Your task to perform on an android device: Open Reddit.com Image 0: 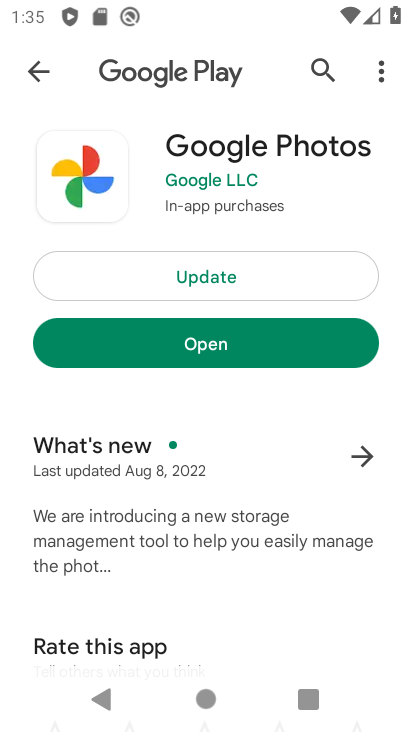
Step 0: press back button
Your task to perform on an android device: Open Reddit.com Image 1: 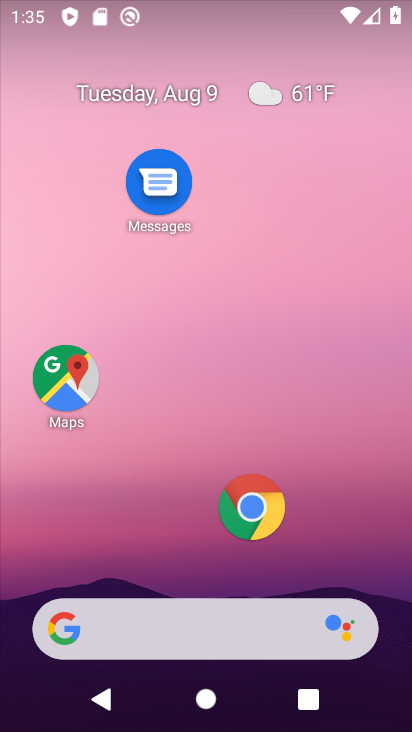
Step 1: drag from (134, 568) to (243, 120)
Your task to perform on an android device: Open Reddit.com Image 2: 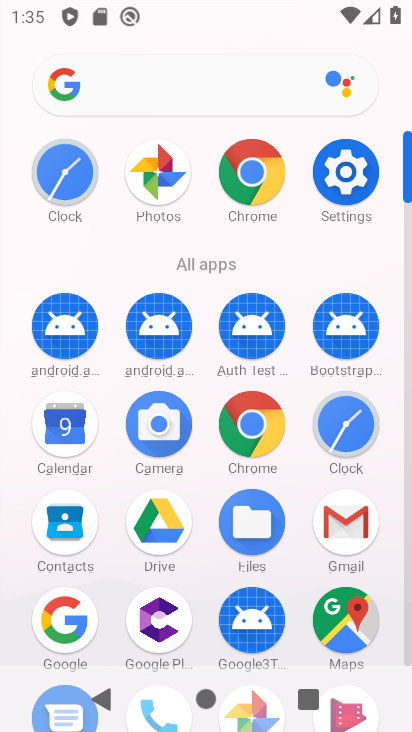
Step 2: click (255, 165)
Your task to perform on an android device: Open Reddit.com Image 3: 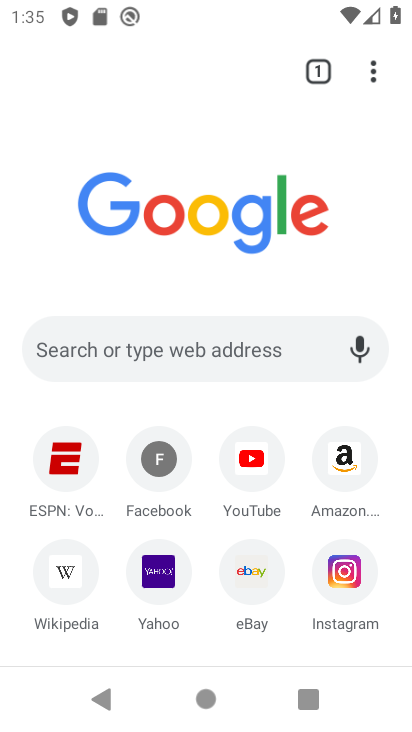
Step 3: click (176, 348)
Your task to perform on an android device: Open Reddit.com Image 4: 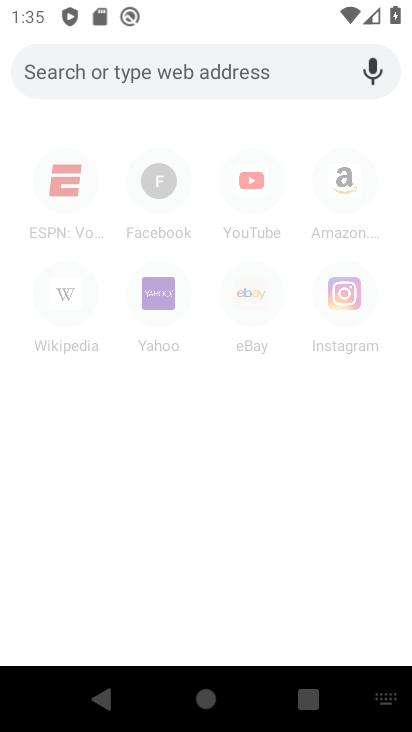
Step 4: click (180, 85)
Your task to perform on an android device: Open Reddit.com Image 5: 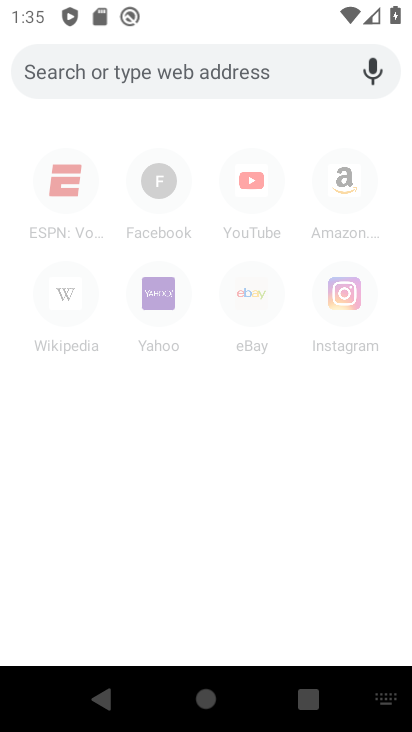
Step 5: click (188, 77)
Your task to perform on an android device: Open Reddit.com Image 6: 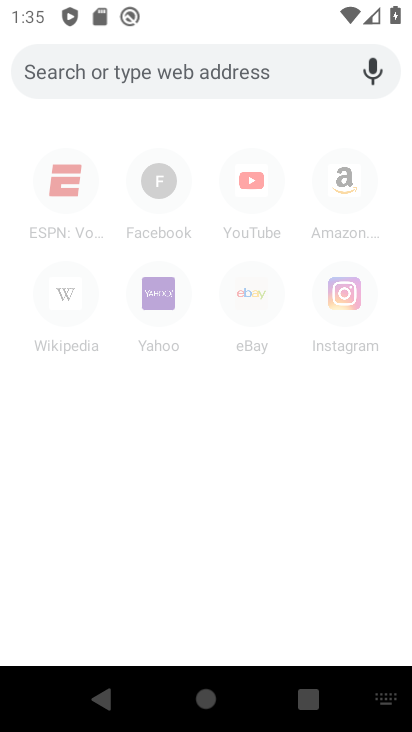
Step 6: type "reddit.com"
Your task to perform on an android device: Open Reddit.com Image 7: 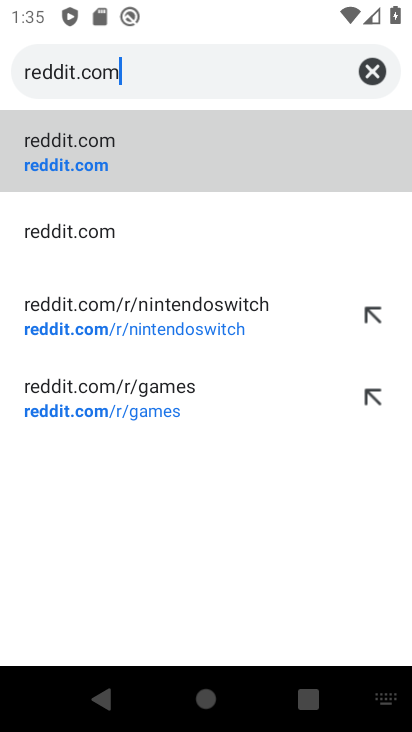
Step 7: click (140, 218)
Your task to perform on an android device: Open Reddit.com Image 8: 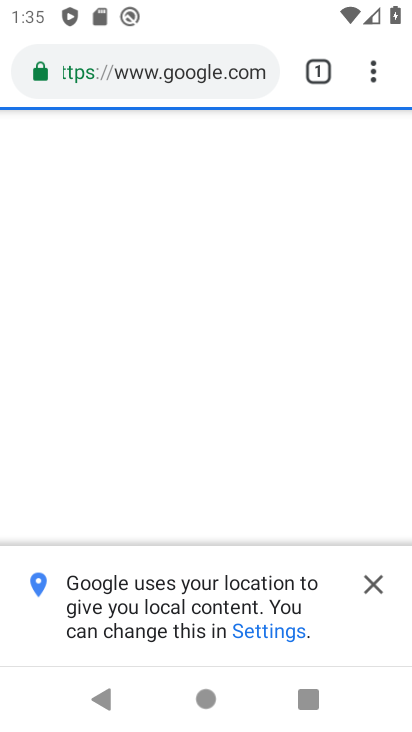
Step 8: click (370, 585)
Your task to perform on an android device: Open Reddit.com Image 9: 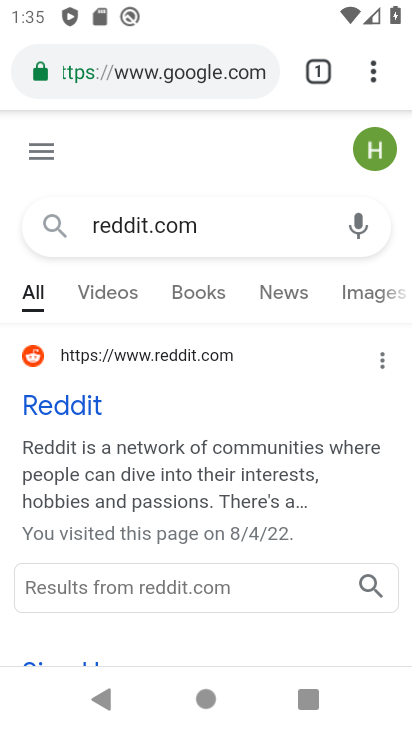
Step 9: click (319, 74)
Your task to perform on an android device: Open Reddit.com Image 10: 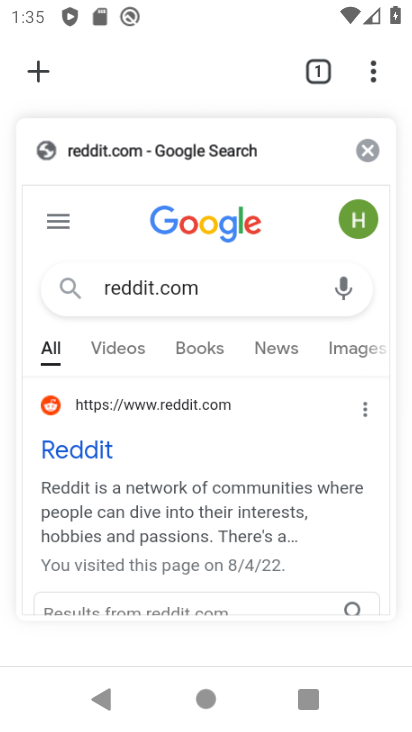
Step 10: click (215, 252)
Your task to perform on an android device: Open Reddit.com Image 11: 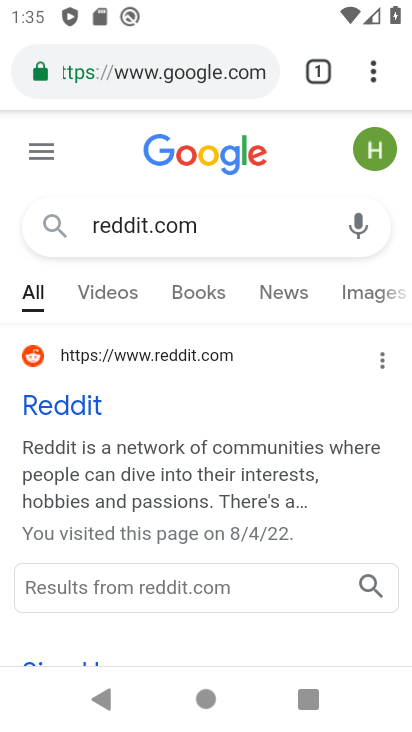
Step 11: click (62, 404)
Your task to perform on an android device: Open Reddit.com Image 12: 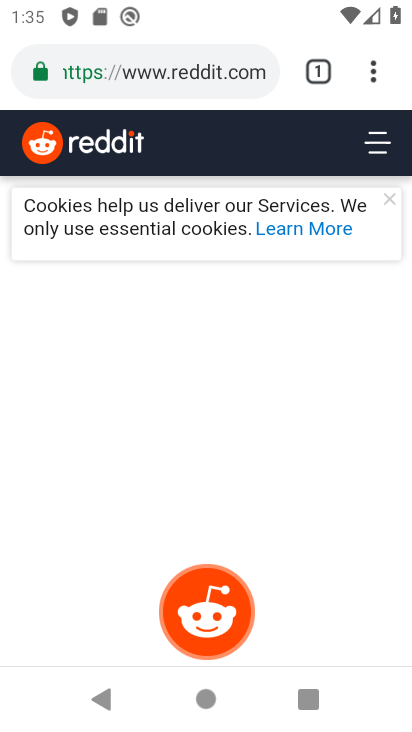
Step 12: task complete